Your task to perform on an android device: turn off data saver in the chrome app Image 0: 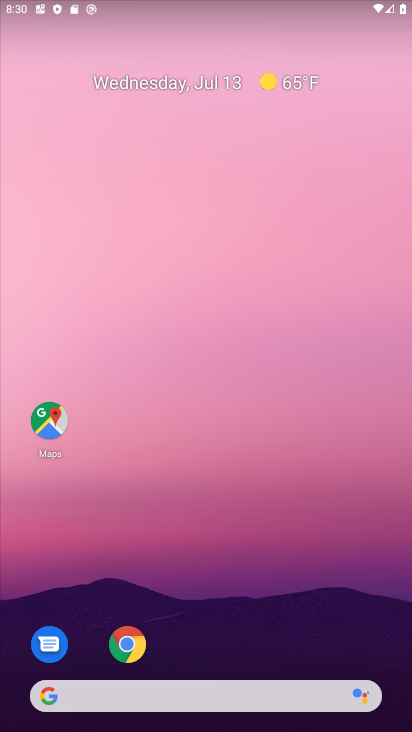
Step 0: drag from (350, 626) to (204, 118)
Your task to perform on an android device: turn off data saver in the chrome app Image 1: 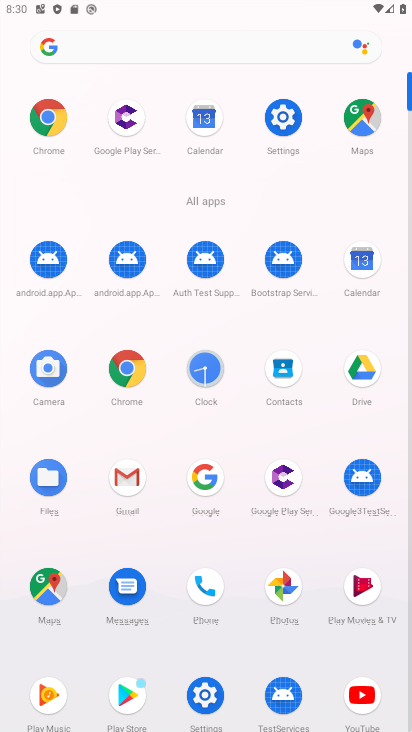
Step 1: click (55, 129)
Your task to perform on an android device: turn off data saver in the chrome app Image 2: 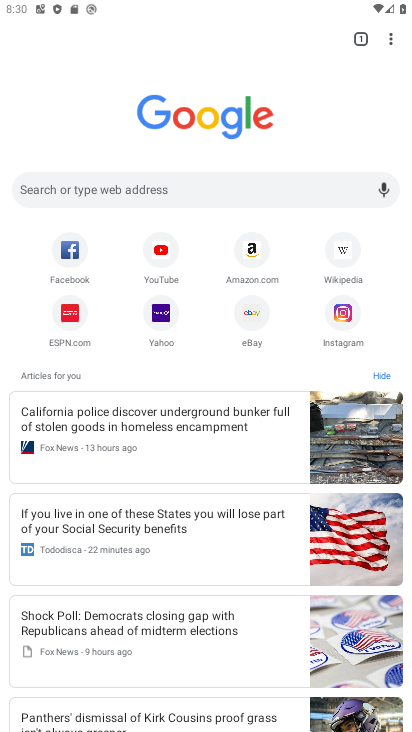
Step 2: drag from (381, 42) to (290, 329)
Your task to perform on an android device: turn off data saver in the chrome app Image 3: 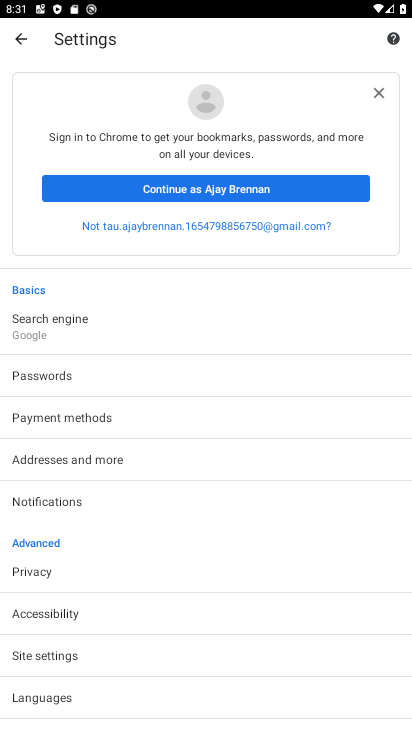
Step 3: drag from (182, 571) to (174, 279)
Your task to perform on an android device: turn off data saver in the chrome app Image 4: 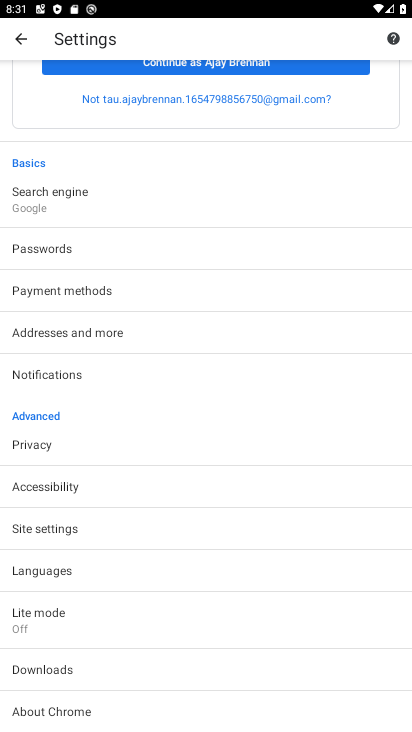
Step 4: click (79, 626)
Your task to perform on an android device: turn off data saver in the chrome app Image 5: 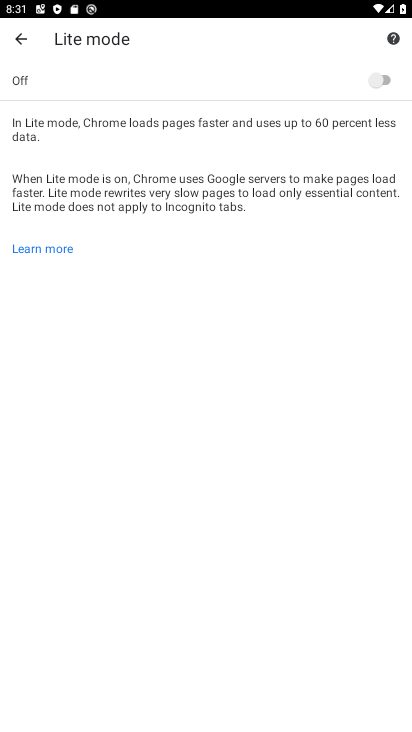
Step 5: task complete